Your task to perform on an android device: Show me the alarms in the clock app Image 0: 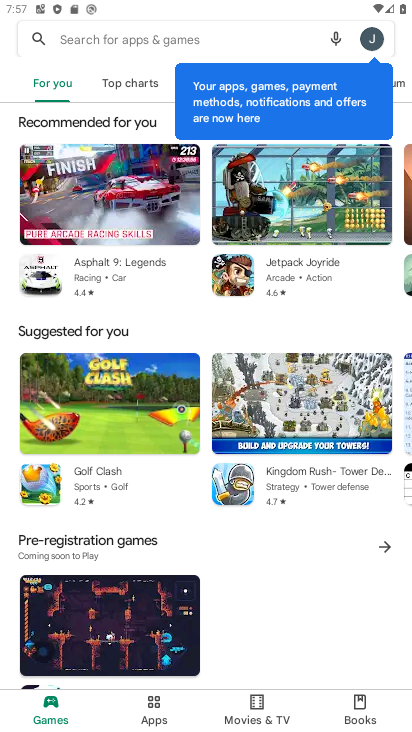
Step 0: press home button
Your task to perform on an android device: Show me the alarms in the clock app Image 1: 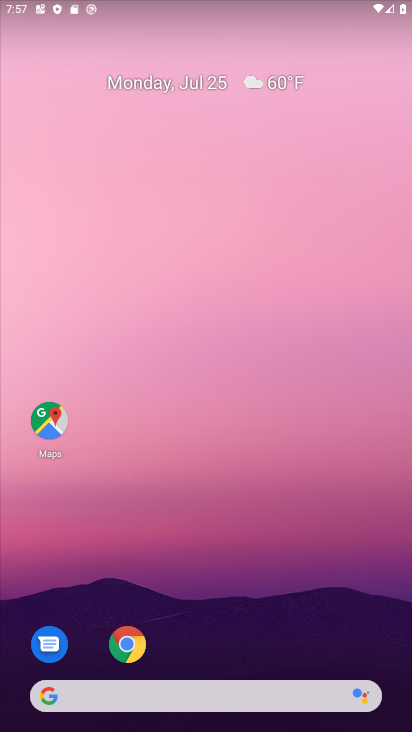
Step 1: drag from (268, 570) to (255, 156)
Your task to perform on an android device: Show me the alarms in the clock app Image 2: 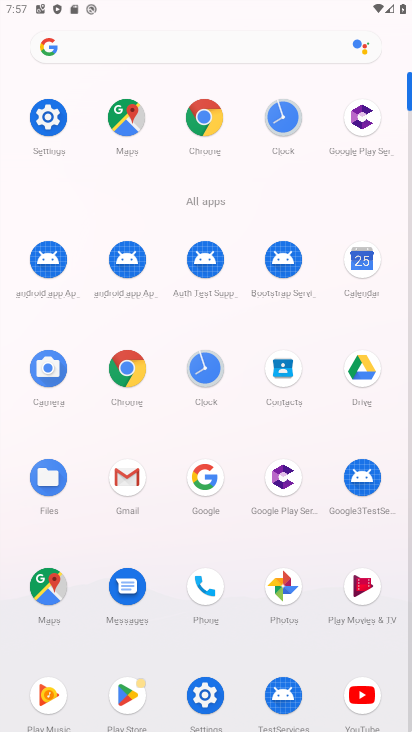
Step 2: click (282, 125)
Your task to perform on an android device: Show me the alarms in the clock app Image 3: 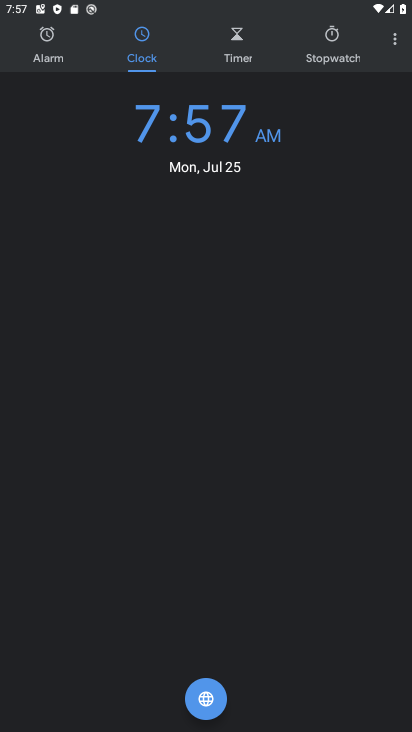
Step 3: click (393, 45)
Your task to perform on an android device: Show me the alarms in the clock app Image 4: 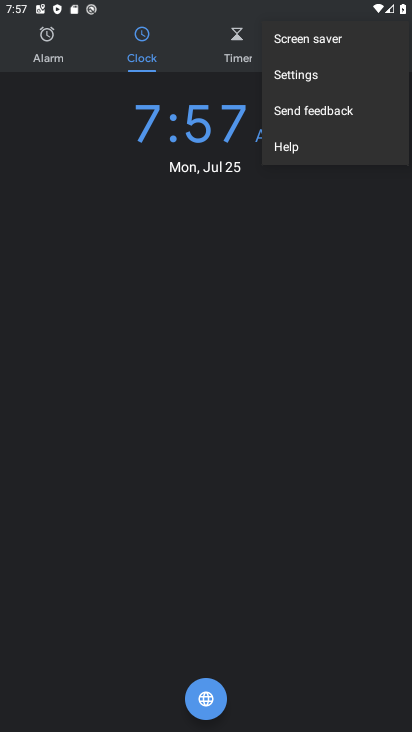
Step 4: click (51, 54)
Your task to perform on an android device: Show me the alarms in the clock app Image 5: 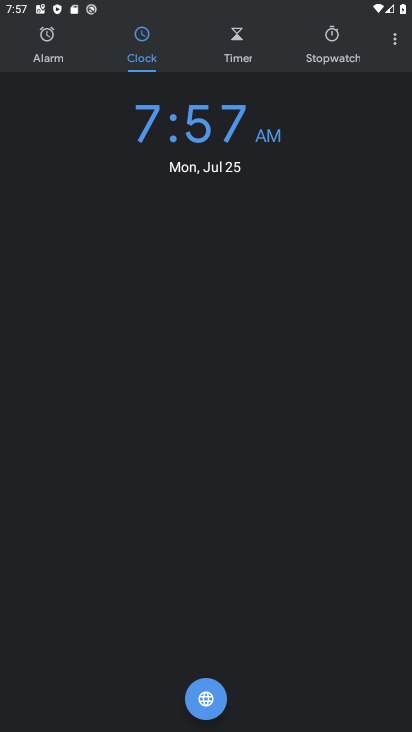
Step 5: click (51, 54)
Your task to perform on an android device: Show me the alarms in the clock app Image 6: 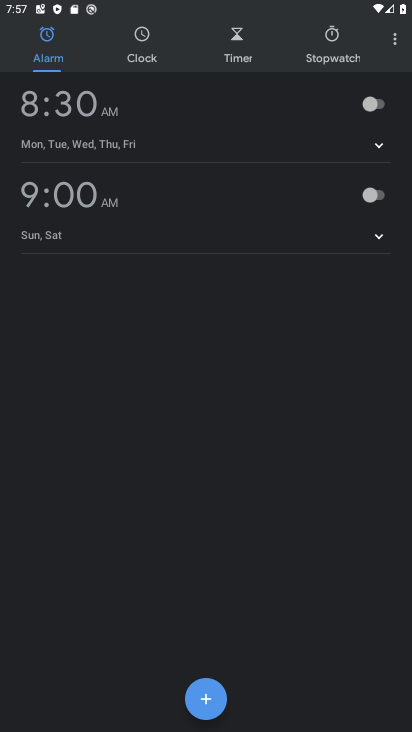
Step 6: task complete